Your task to perform on an android device: toggle priority inbox in the gmail app Image 0: 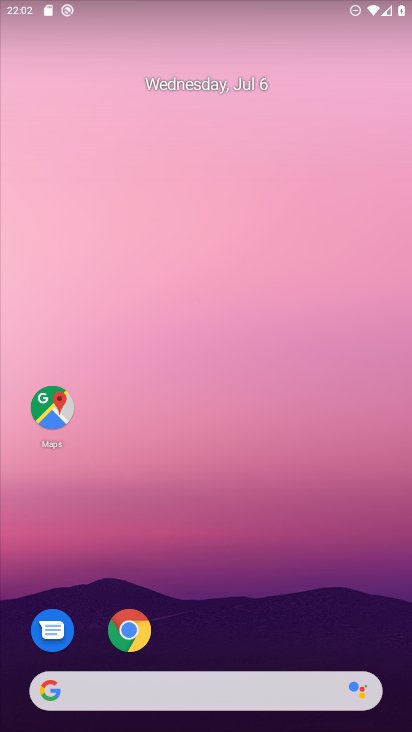
Step 0: press home button
Your task to perform on an android device: toggle priority inbox in the gmail app Image 1: 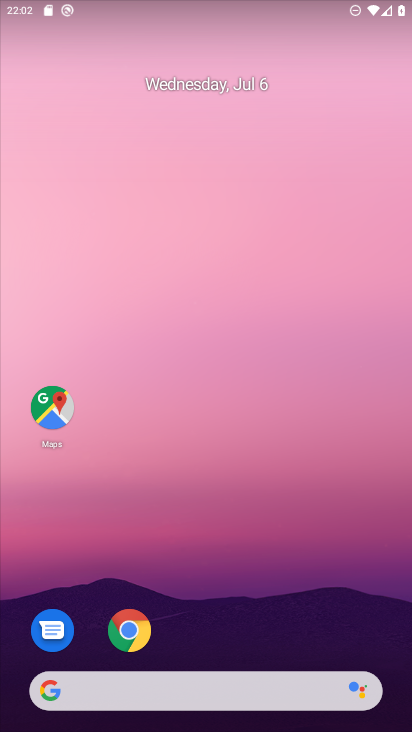
Step 1: drag from (158, 728) to (250, 58)
Your task to perform on an android device: toggle priority inbox in the gmail app Image 2: 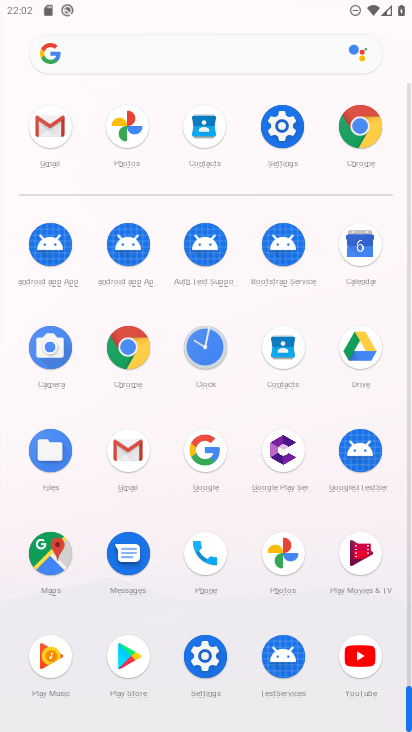
Step 2: click (68, 135)
Your task to perform on an android device: toggle priority inbox in the gmail app Image 3: 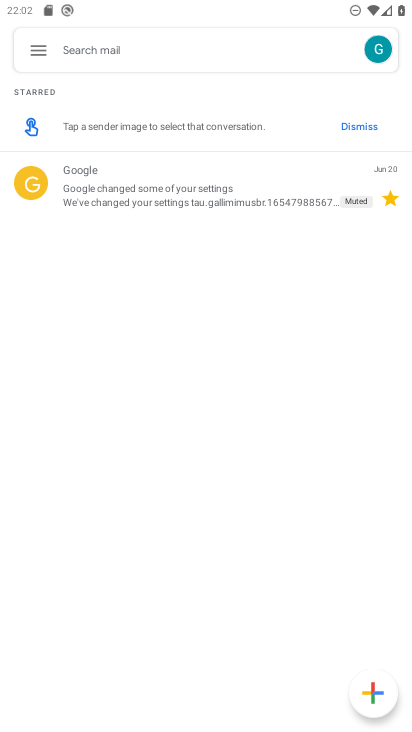
Step 3: click (32, 51)
Your task to perform on an android device: toggle priority inbox in the gmail app Image 4: 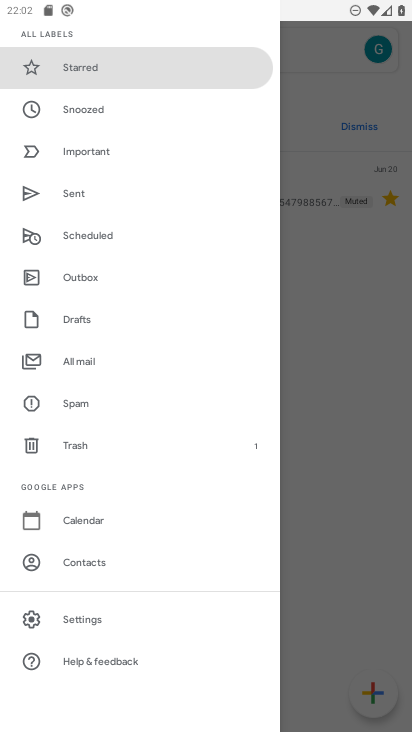
Step 4: click (76, 625)
Your task to perform on an android device: toggle priority inbox in the gmail app Image 5: 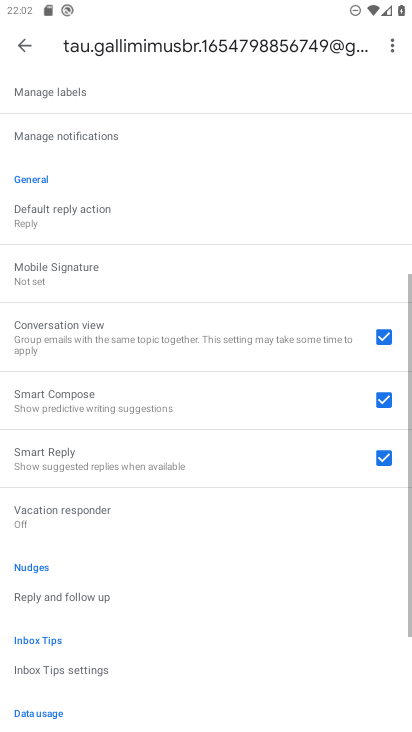
Step 5: drag from (122, 234) to (138, 727)
Your task to perform on an android device: toggle priority inbox in the gmail app Image 6: 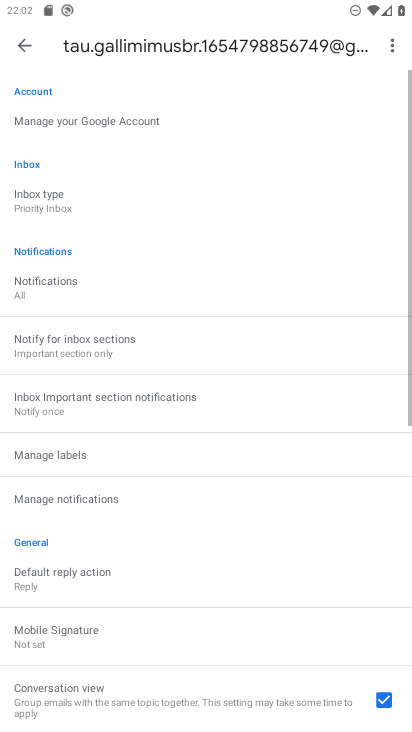
Step 6: click (72, 205)
Your task to perform on an android device: toggle priority inbox in the gmail app Image 7: 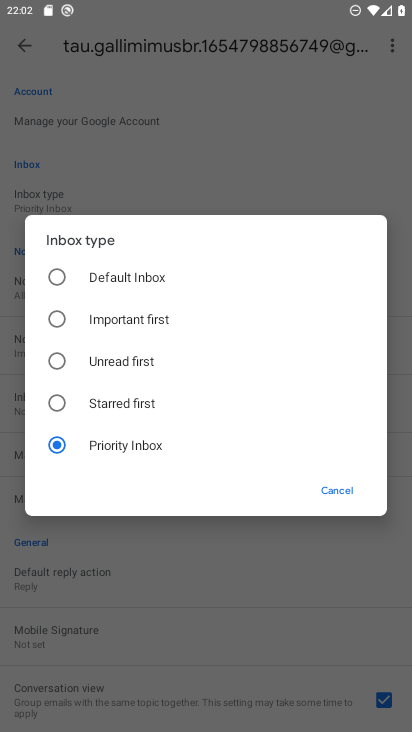
Step 7: click (86, 409)
Your task to perform on an android device: toggle priority inbox in the gmail app Image 8: 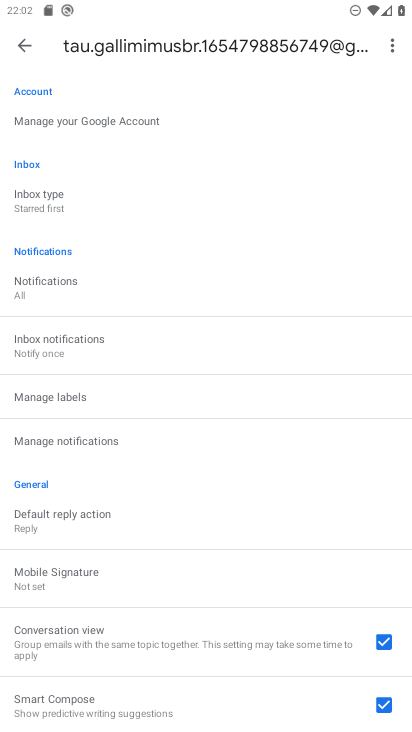
Step 8: task complete